Your task to perform on an android device: toggle data saver in the chrome app Image 0: 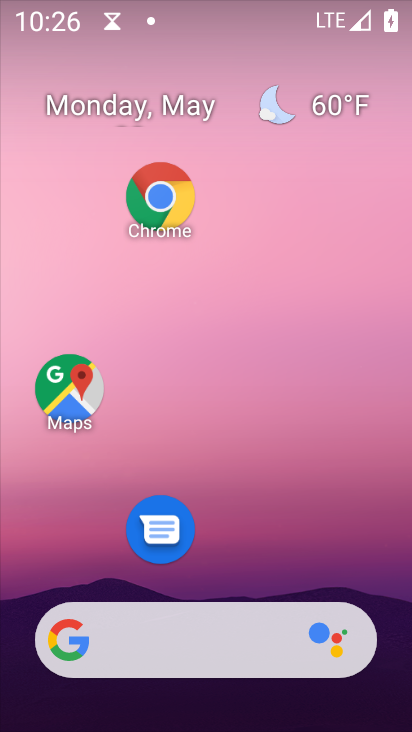
Step 0: drag from (258, 560) to (246, 134)
Your task to perform on an android device: toggle data saver in the chrome app Image 1: 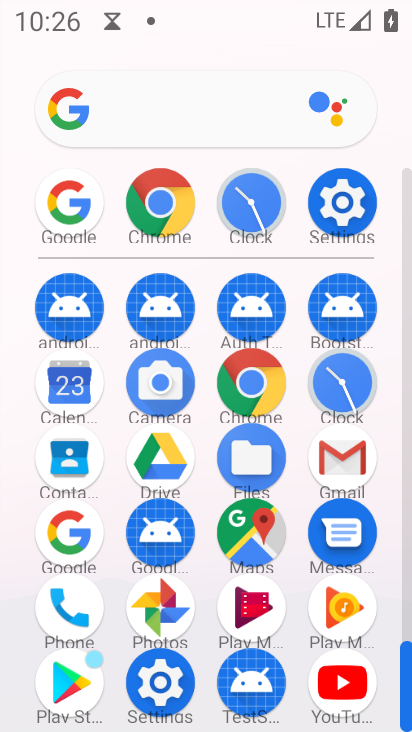
Step 1: click (158, 696)
Your task to perform on an android device: toggle data saver in the chrome app Image 2: 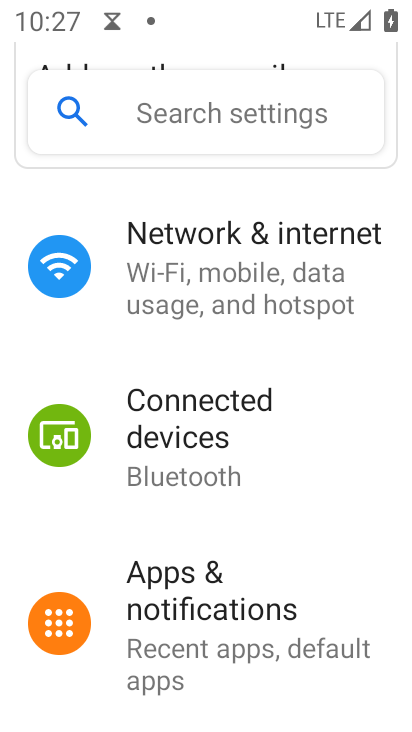
Step 2: press back button
Your task to perform on an android device: toggle data saver in the chrome app Image 3: 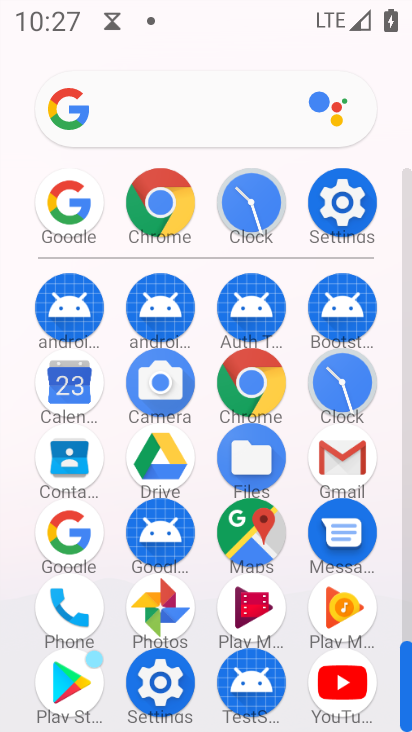
Step 3: click (152, 210)
Your task to perform on an android device: toggle data saver in the chrome app Image 4: 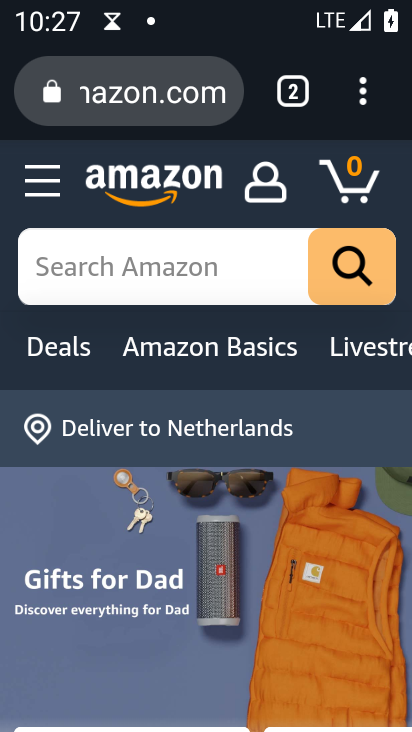
Step 4: click (368, 87)
Your task to perform on an android device: toggle data saver in the chrome app Image 5: 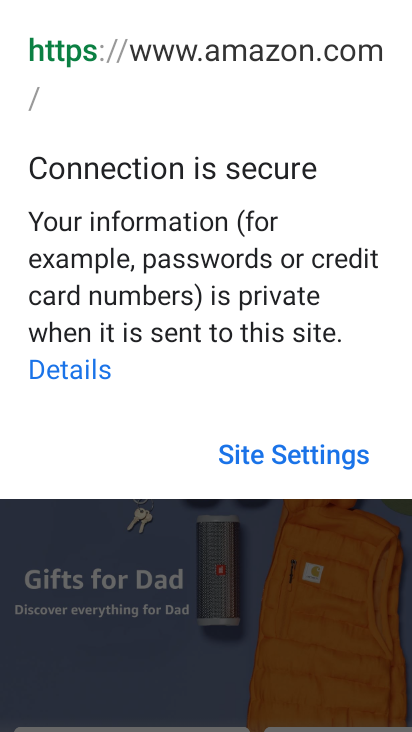
Step 5: click (181, 555)
Your task to perform on an android device: toggle data saver in the chrome app Image 6: 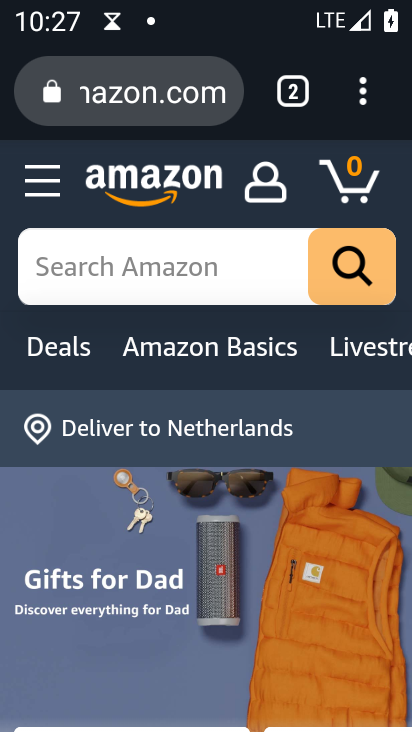
Step 6: click (365, 106)
Your task to perform on an android device: toggle data saver in the chrome app Image 7: 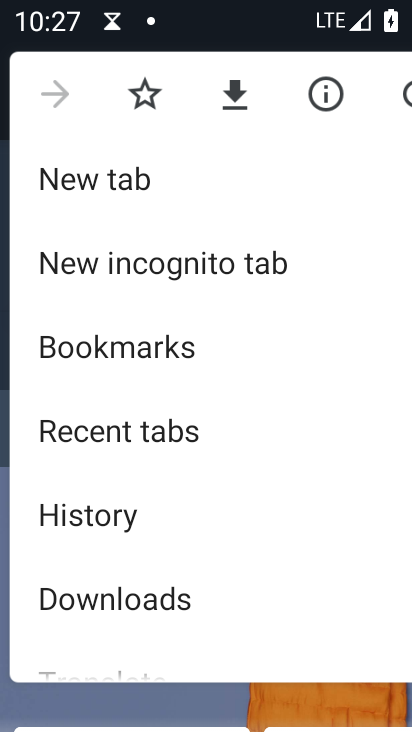
Step 7: drag from (165, 604) to (131, 399)
Your task to perform on an android device: toggle data saver in the chrome app Image 8: 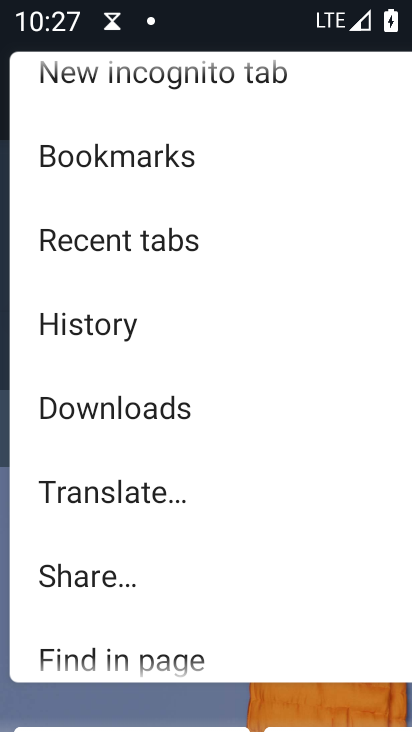
Step 8: drag from (124, 653) to (143, 324)
Your task to perform on an android device: toggle data saver in the chrome app Image 9: 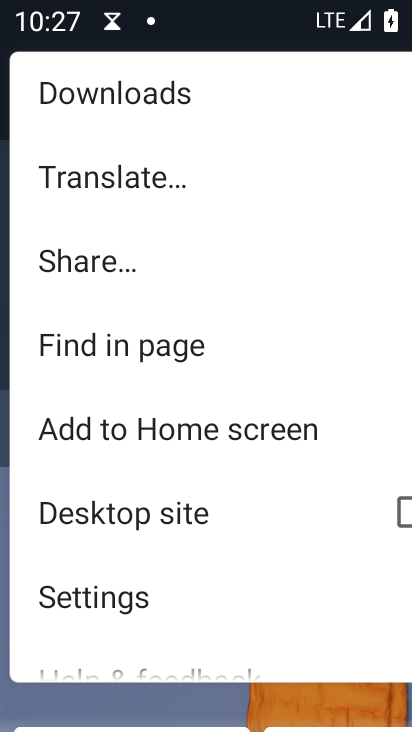
Step 9: click (105, 588)
Your task to perform on an android device: toggle data saver in the chrome app Image 10: 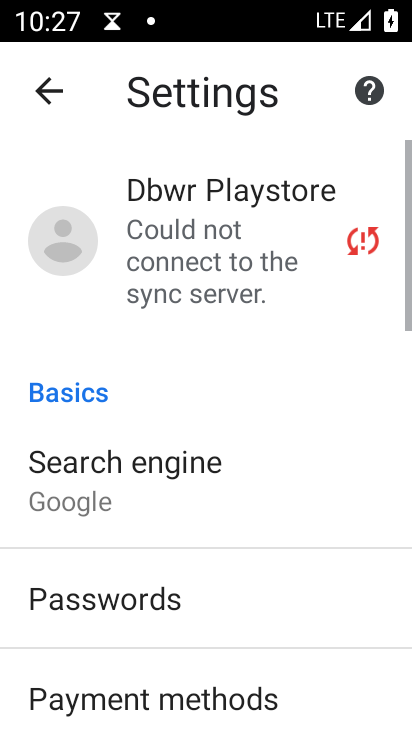
Step 10: drag from (148, 660) to (185, 279)
Your task to perform on an android device: toggle data saver in the chrome app Image 11: 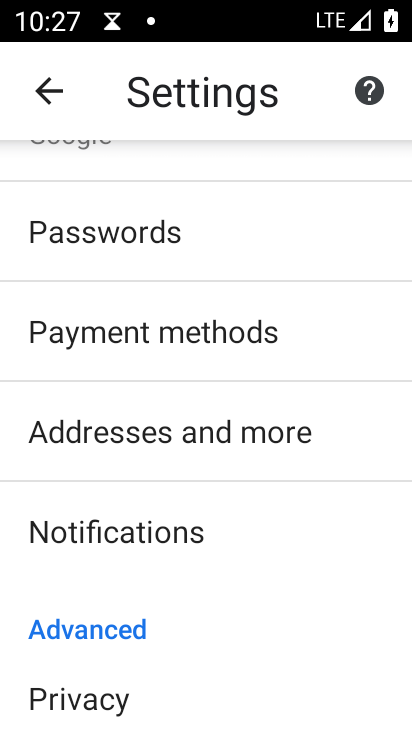
Step 11: drag from (163, 632) to (194, 267)
Your task to perform on an android device: toggle data saver in the chrome app Image 12: 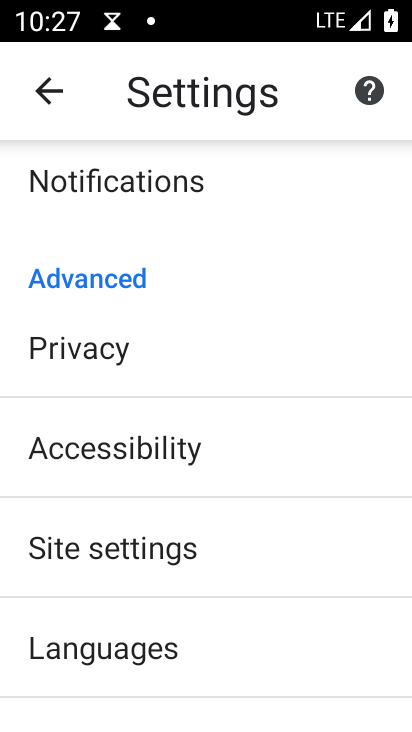
Step 12: drag from (173, 656) to (213, 339)
Your task to perform on an android device: toggle data saver in the chrome app Image 13: 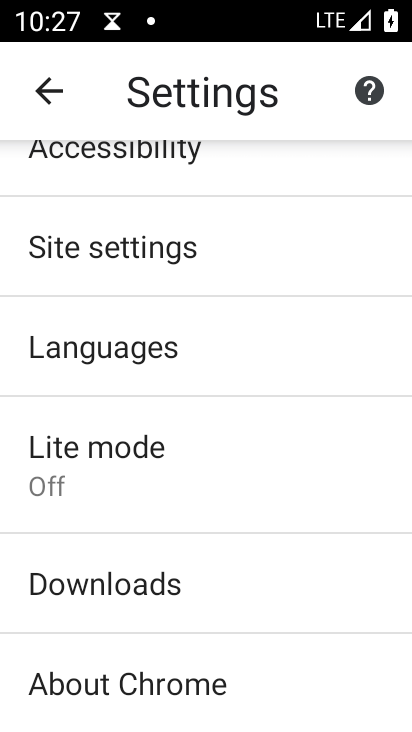
Step 13: click (119, 496)
Your task to perform on an android device: toggle data saver in the chrome app Image 14: 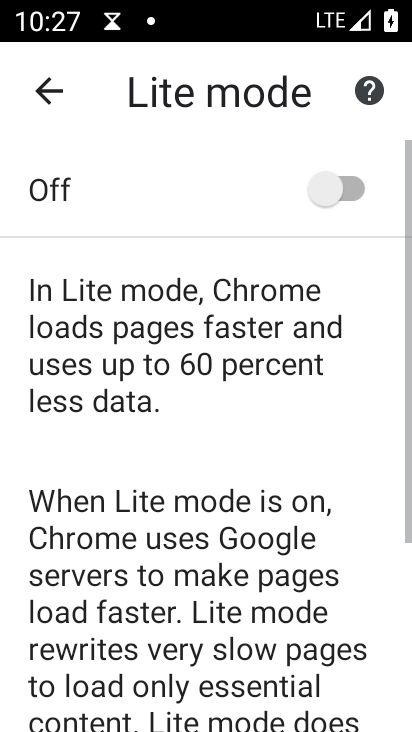
Step 14: click (367, 190)
Your task to perform on an android device: toggle data saver in the chrome app Image 15: 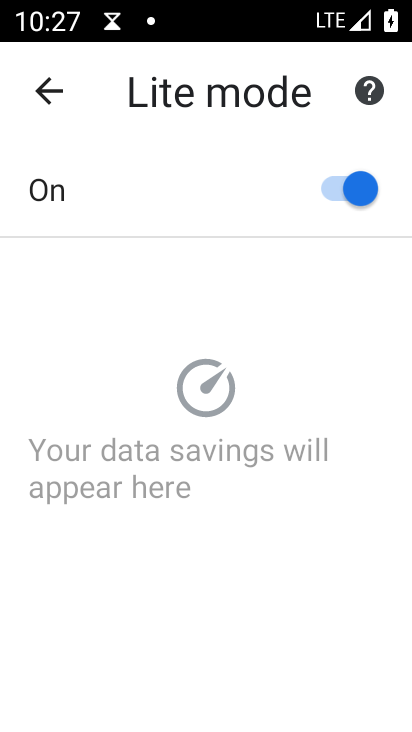
Step 15: task complete